Your task to perform on an android device: Clear the shopping cart on bestbuy. Add acer nitro to the cart on bestbuy Image 0: 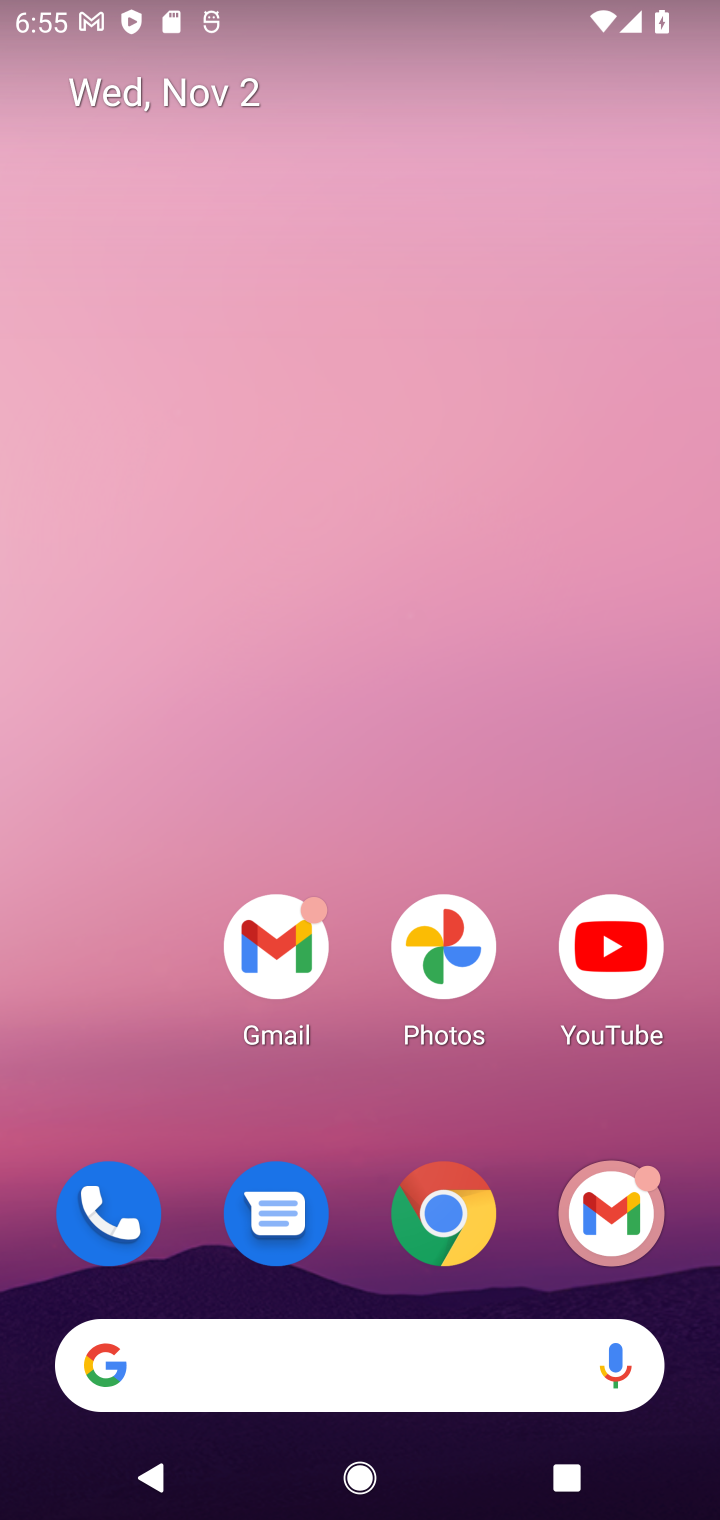
Step 0: click (443, 1210)
Your task to perform on an android device: Clear the shopping cart on bestbuy. Add acer nitro to the cart on bestbuy Image 1: 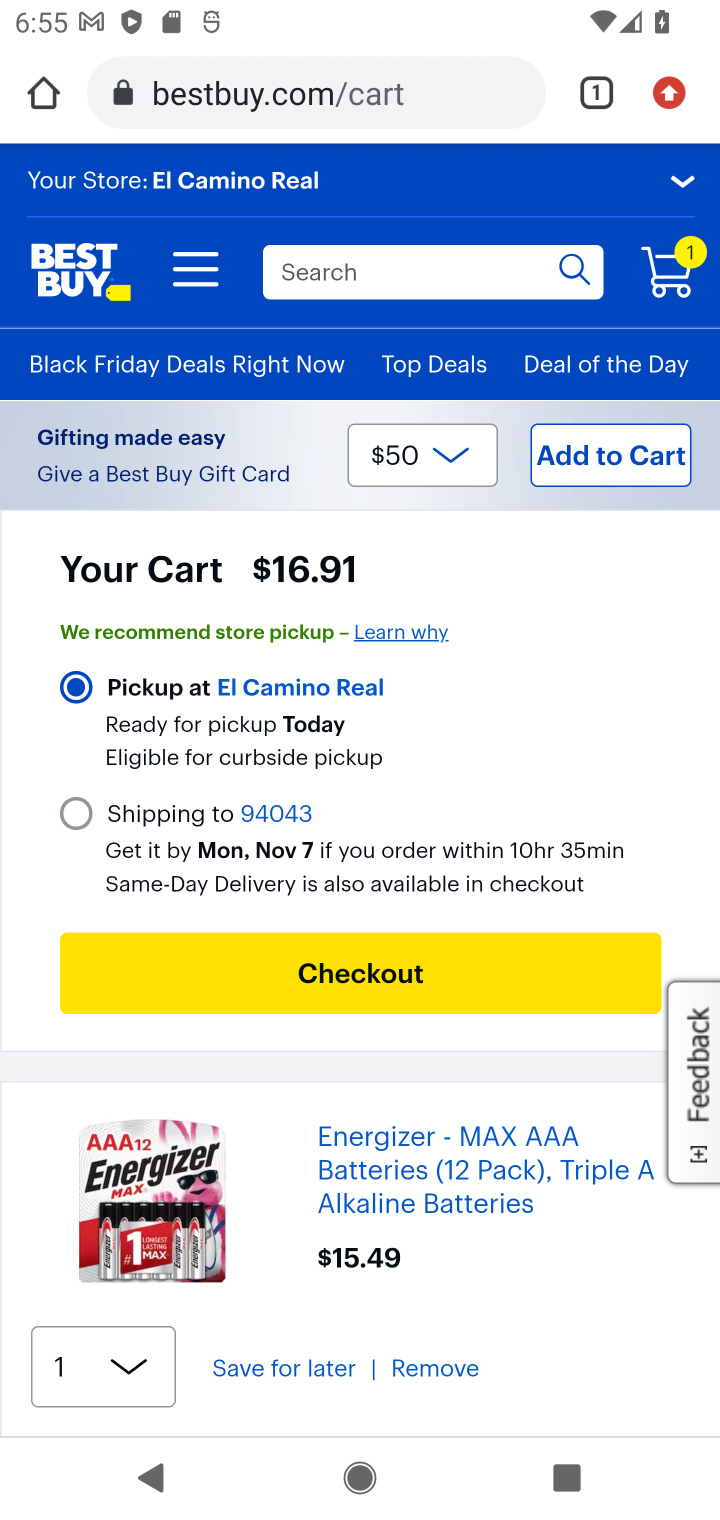
Step 1: click (431, 62)
Your task to perform on an android device: Clear the shopping cart on bestbuy. Add acer nitro to the cart on bestbuy Image 2: 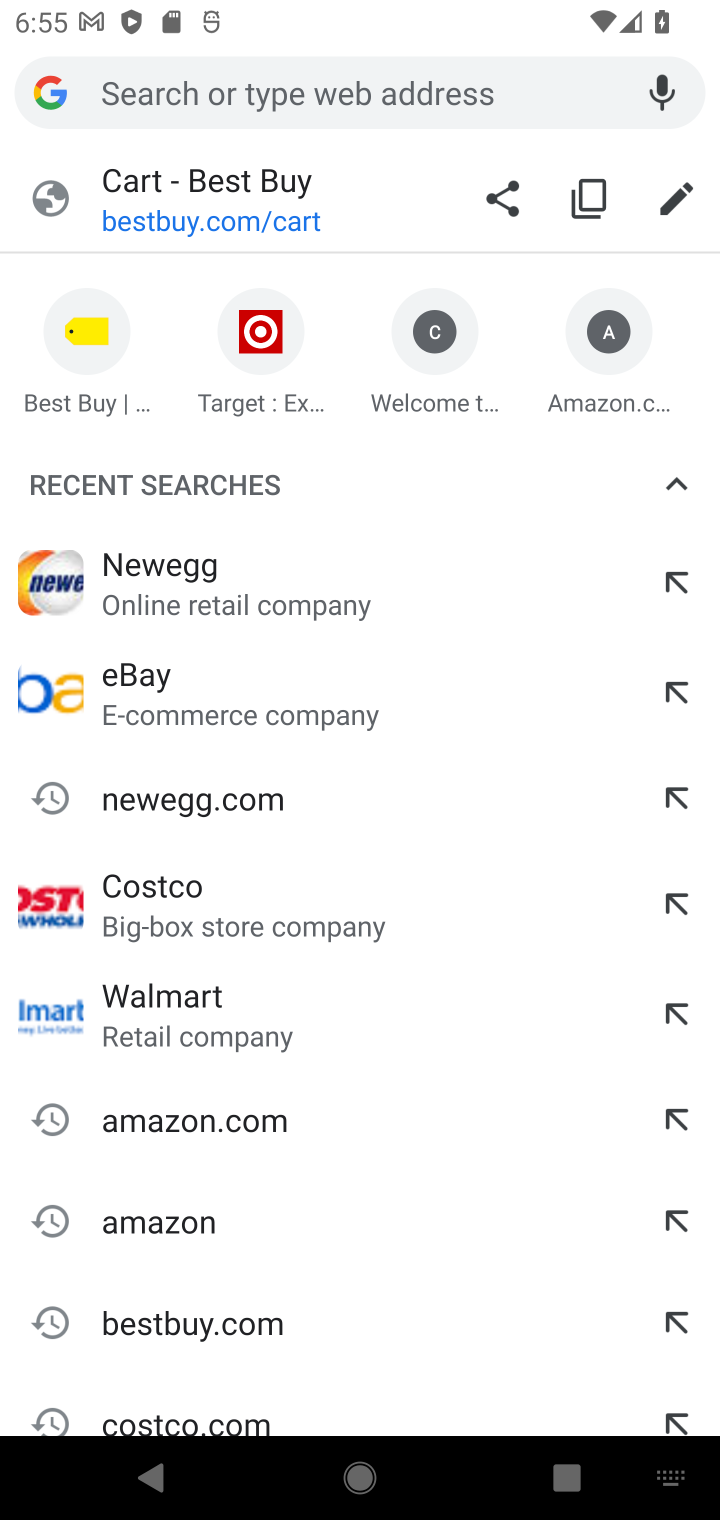
Step 2: type "bestbuy"
Your task to perform on an android device: Clear the shopping cart on bestbuy. Add acer nitro to the cart on bestbuy Image 3: 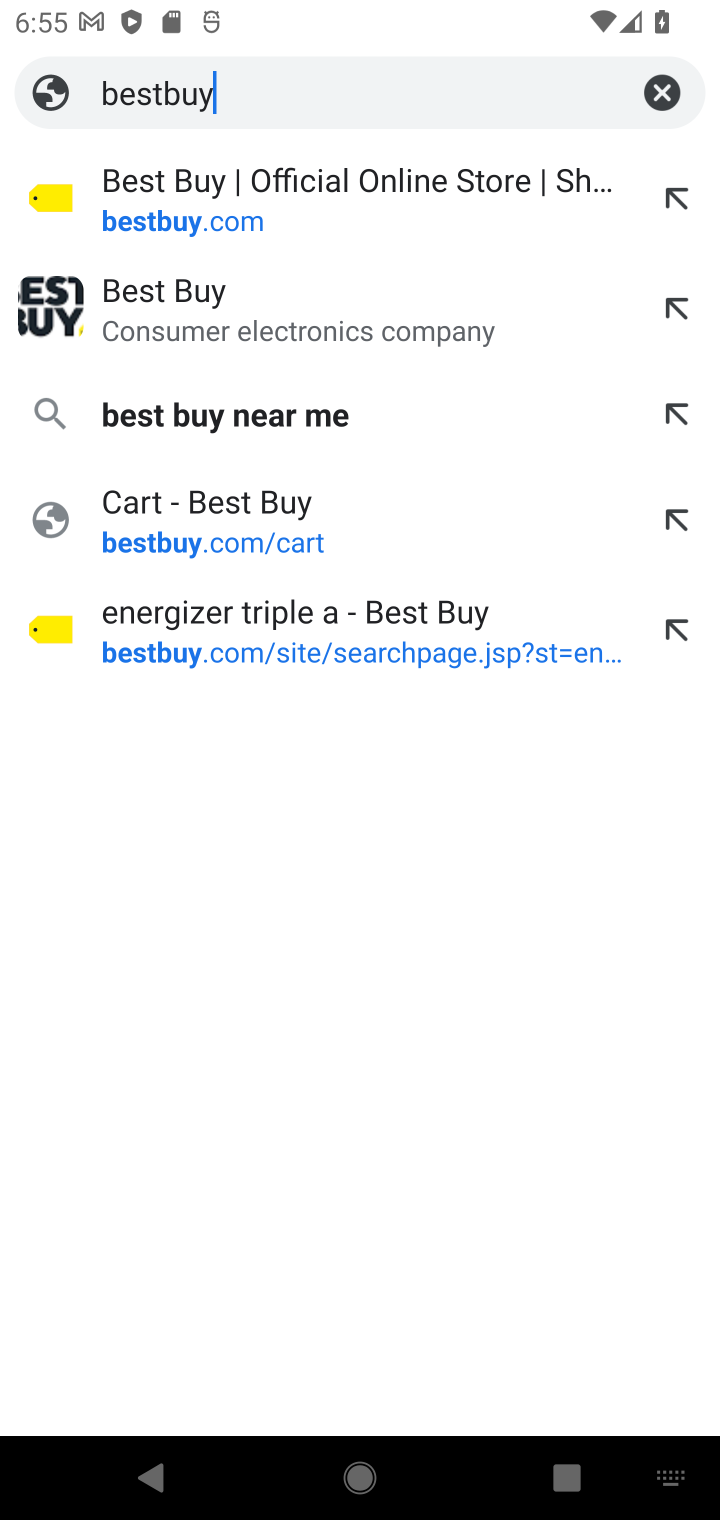
Step 3: click (174, 178)
Your task to perform on an android device: Clear the shopping cart on bestbuy. Add acer nitro to the cart on bestbuy Image 4: 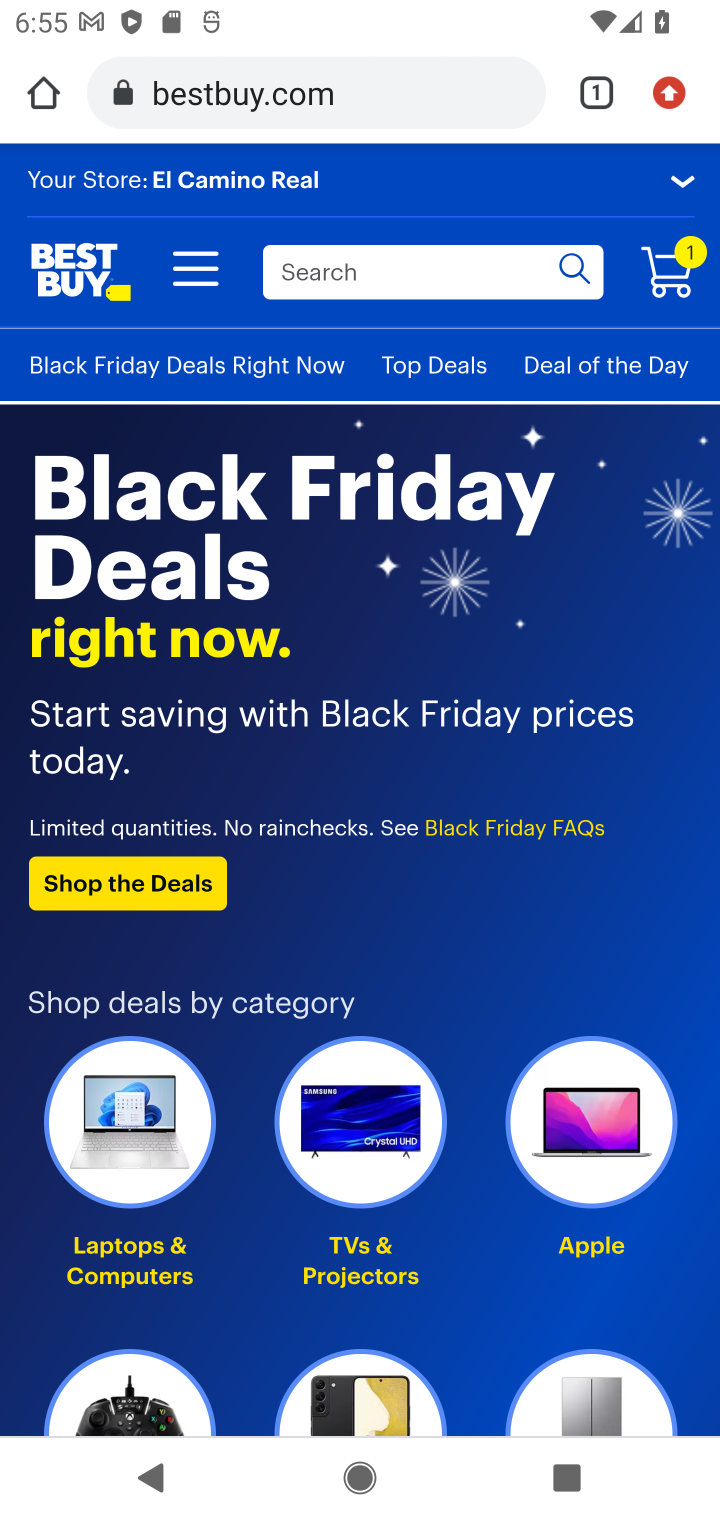
Step 4: click (664, 259)
Your task to perform on an android device: Clear the shopping cart on bestbuy. Add acer nitro to the cart on bestbuy Image 5: 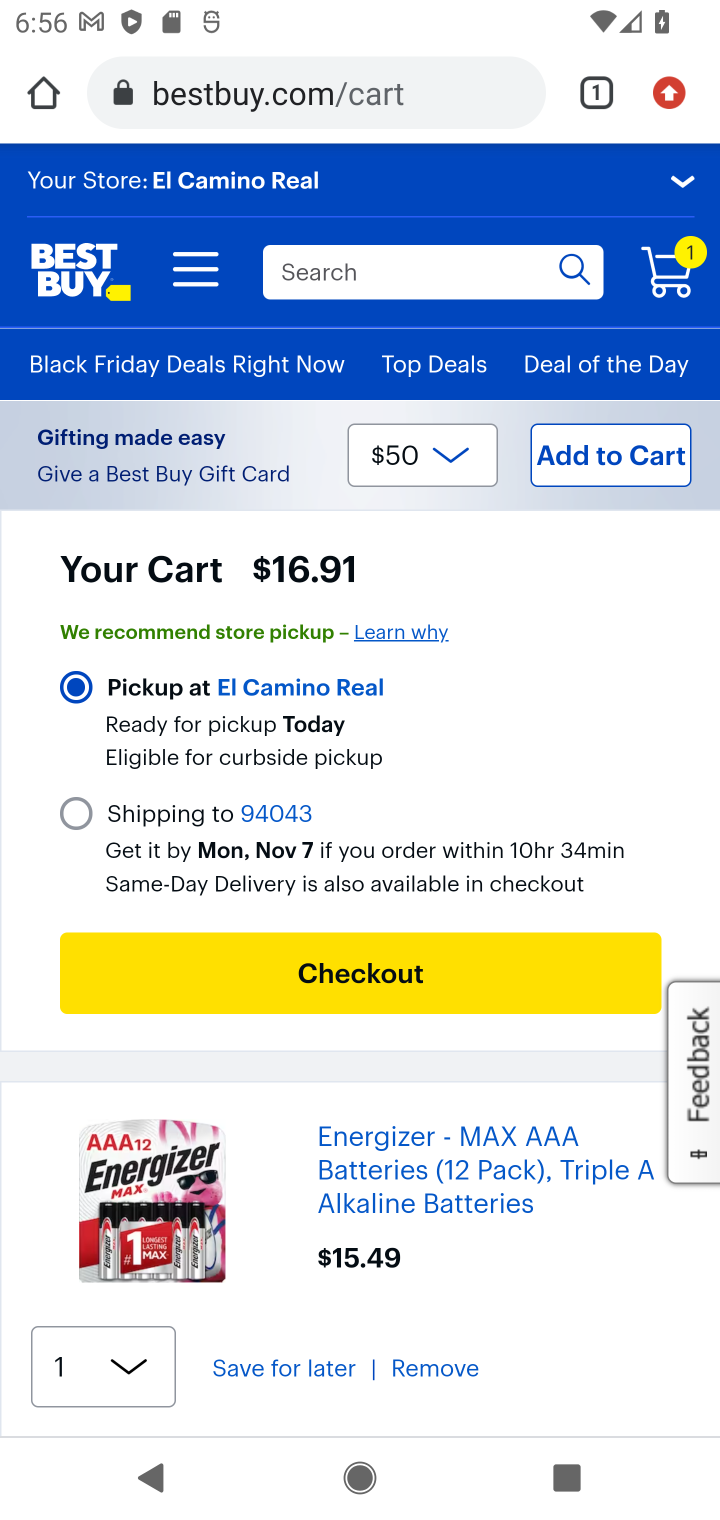
Step 5: drag from (438, 1322) to (385, 920)
Your task to perform on an android device: Clear the shopping cart on bestbuy. Add acer nitro to the cart on bestbuy Image 6: 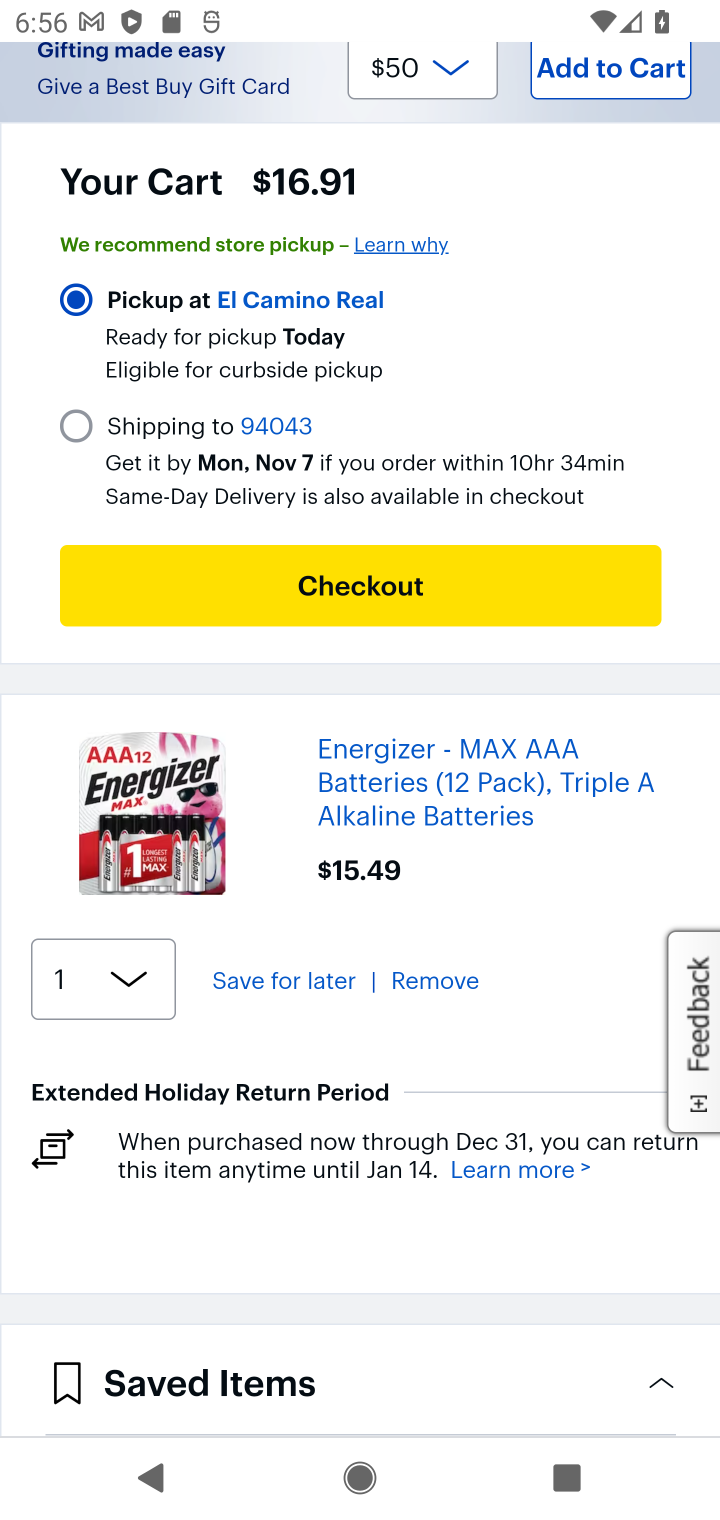
Step 6: click (435, 978)
Your task to perform on an android device: Clear the shopping cart on bestbuy. Add acer nitro to the cart on bestbuy Image 7: 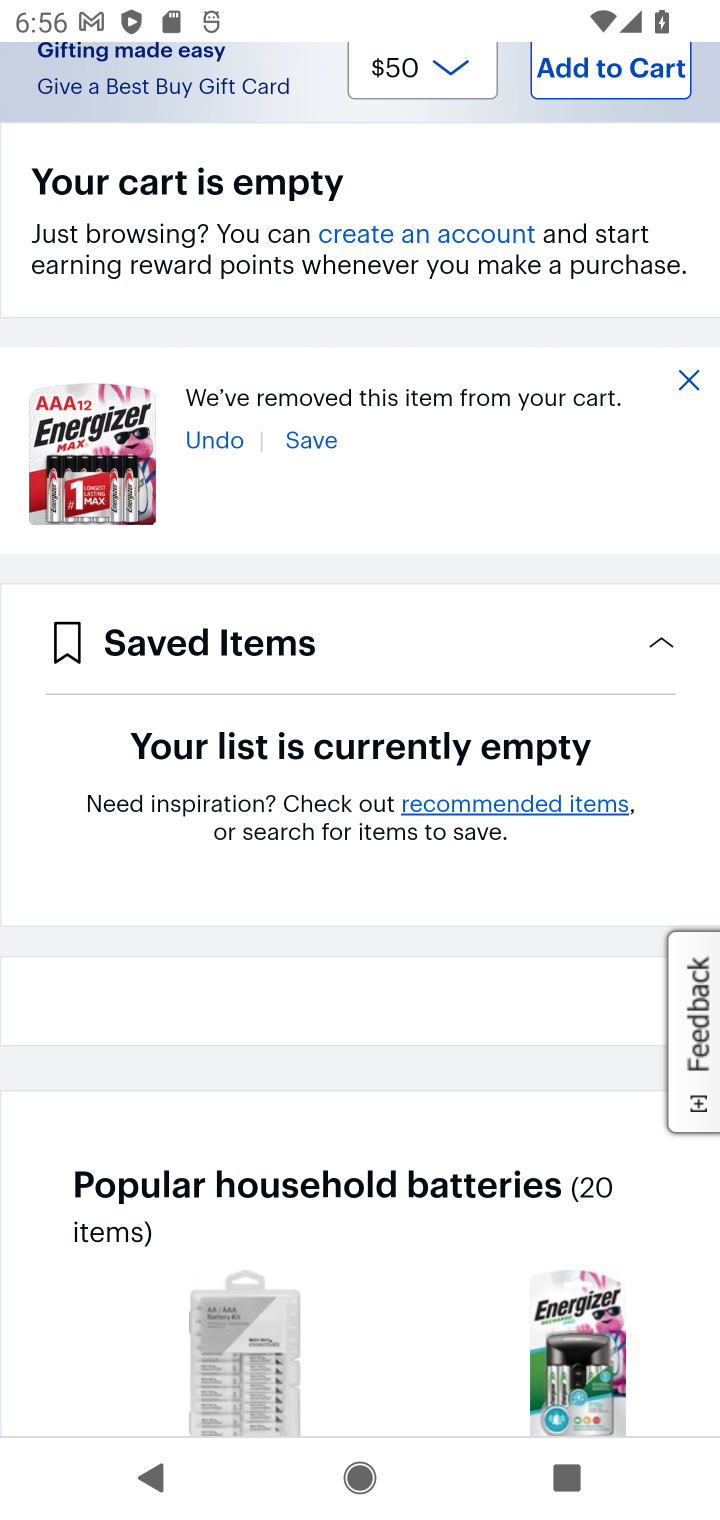
Step 7: drag from (427, 267) to (440, 943)
Your task to perform on an android device: Clear the shopping cart on bestbuy. Add acer nitro to the cart on bestbuy Image 8: 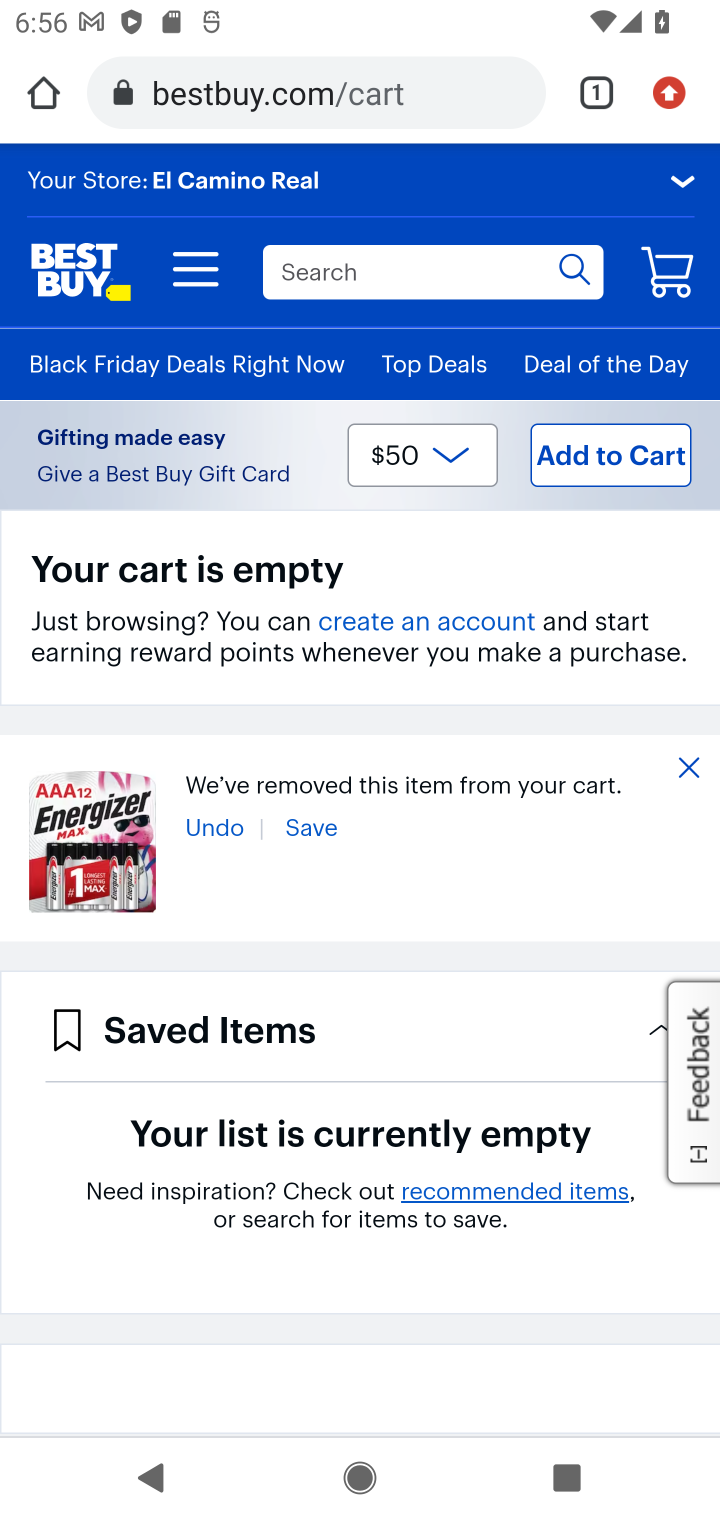
Step 8: click (356, 264)
Your task to perform on an android device: Clear the shopping cart on bestbuy. Add acer nitro to the cart on bestbuy Image 9: 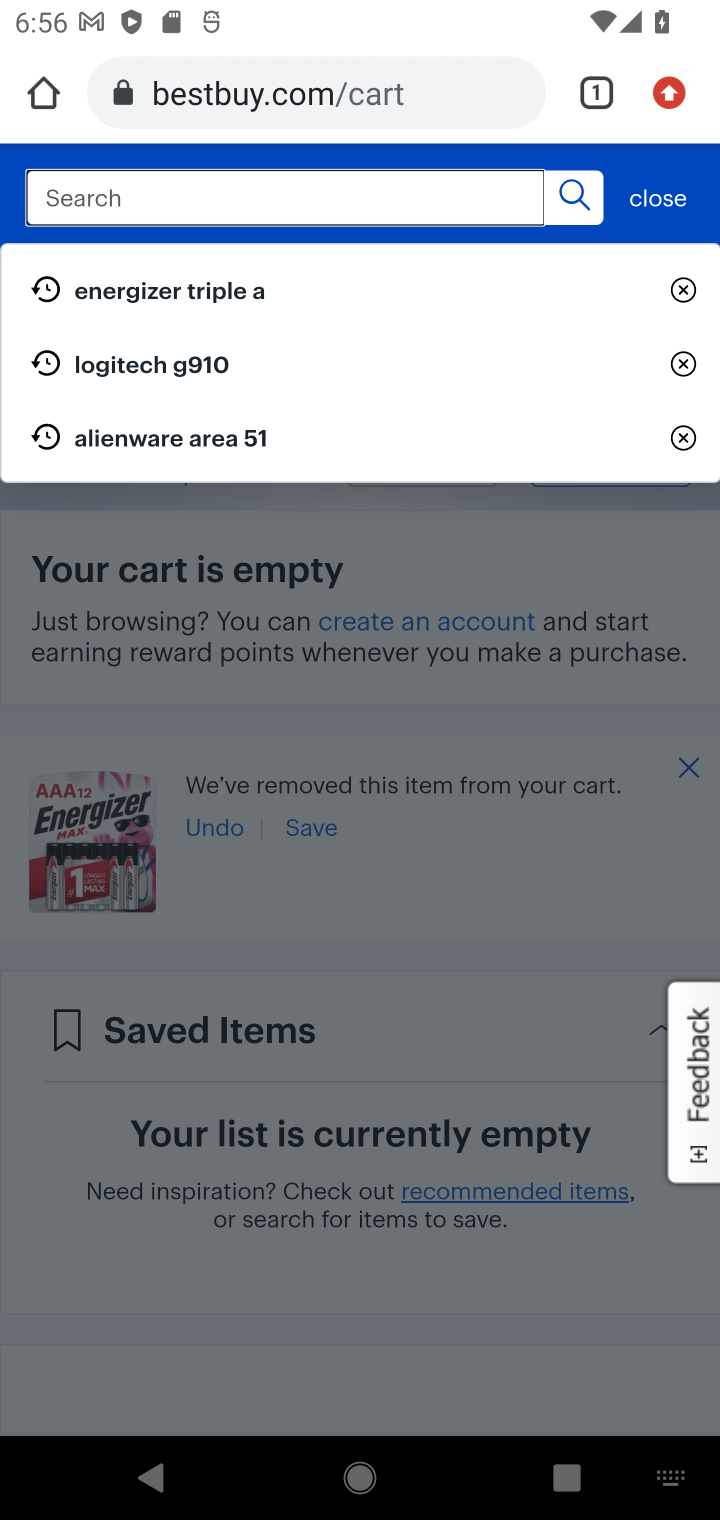
Step 9: click (144, 192)
Your task to perform on an android device: Clear the shopping cart on bestbuy. Add acer nitro to the cart on bestbuy Image 10: 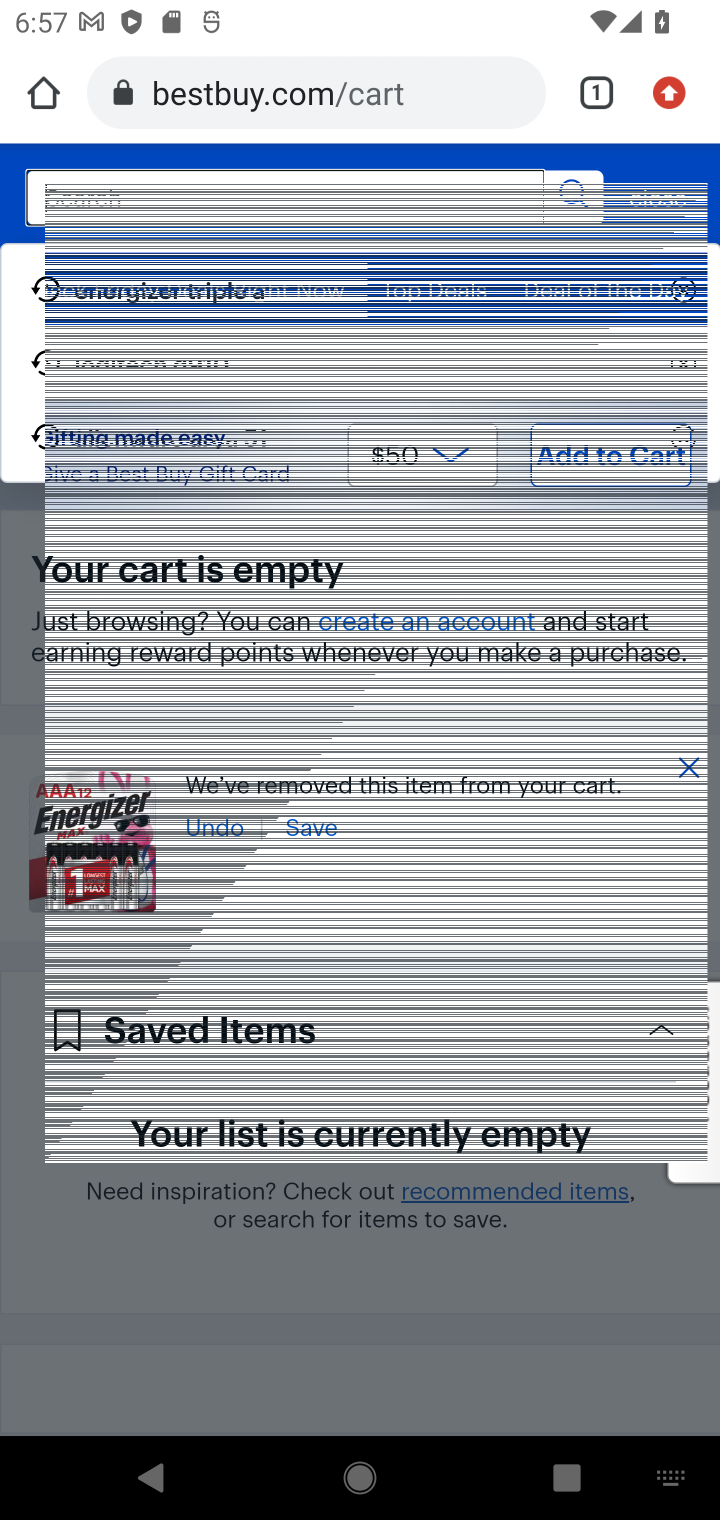
Step 10: type "acer nitro"
Your task to perform on an android device: Clear the shopping cart on bestbuy. Add acer nitro to the cart on bestbuy Image 11: 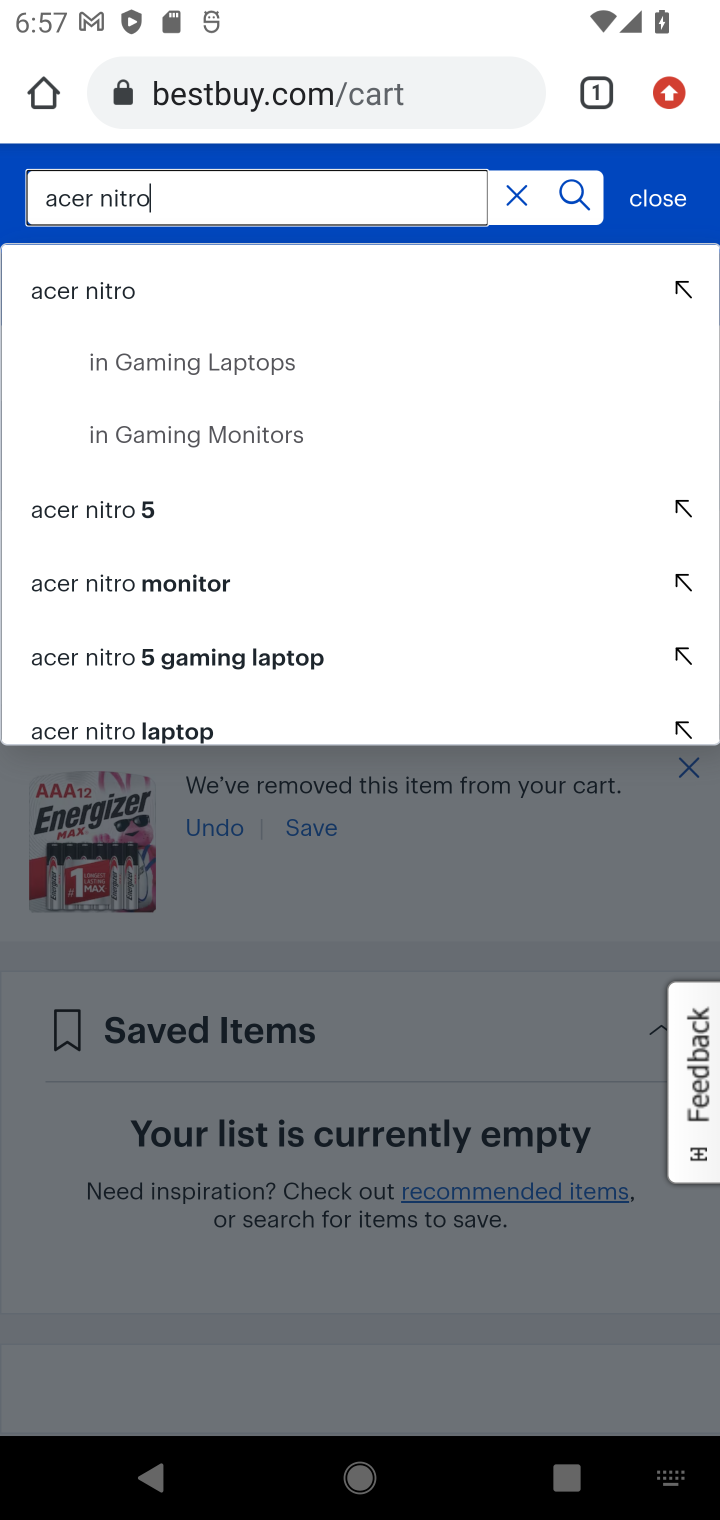
Step 11: click (50, 286)
Your task to perform on an android device: Clear the shopping cart on bestbuy. Add acer nitro to the cart on bestbuy Image 12: 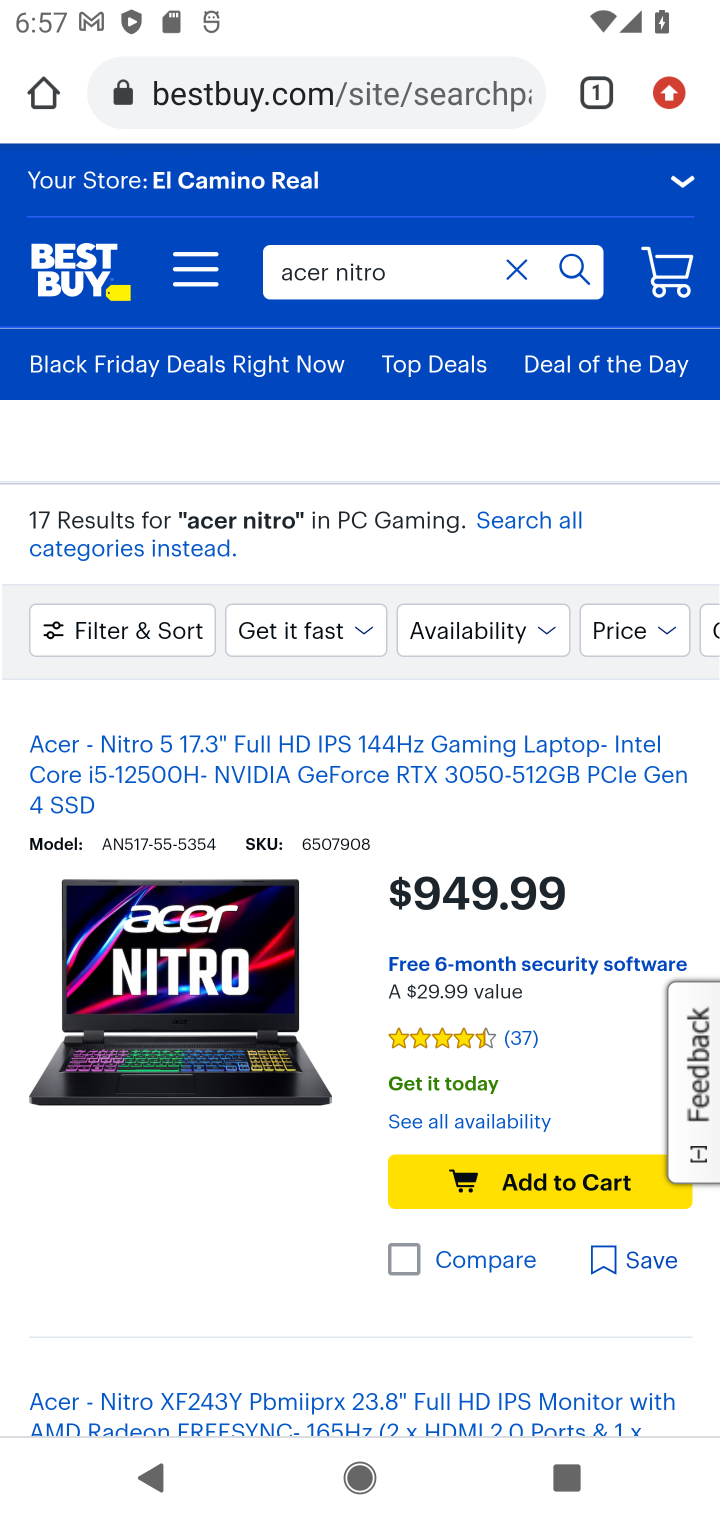
Step 12: click (528, 1175)
Your task to perform on an android device: Clear the shopping cart on bestbuy. Add acer nitro to the cart on bestbuy Image 13: 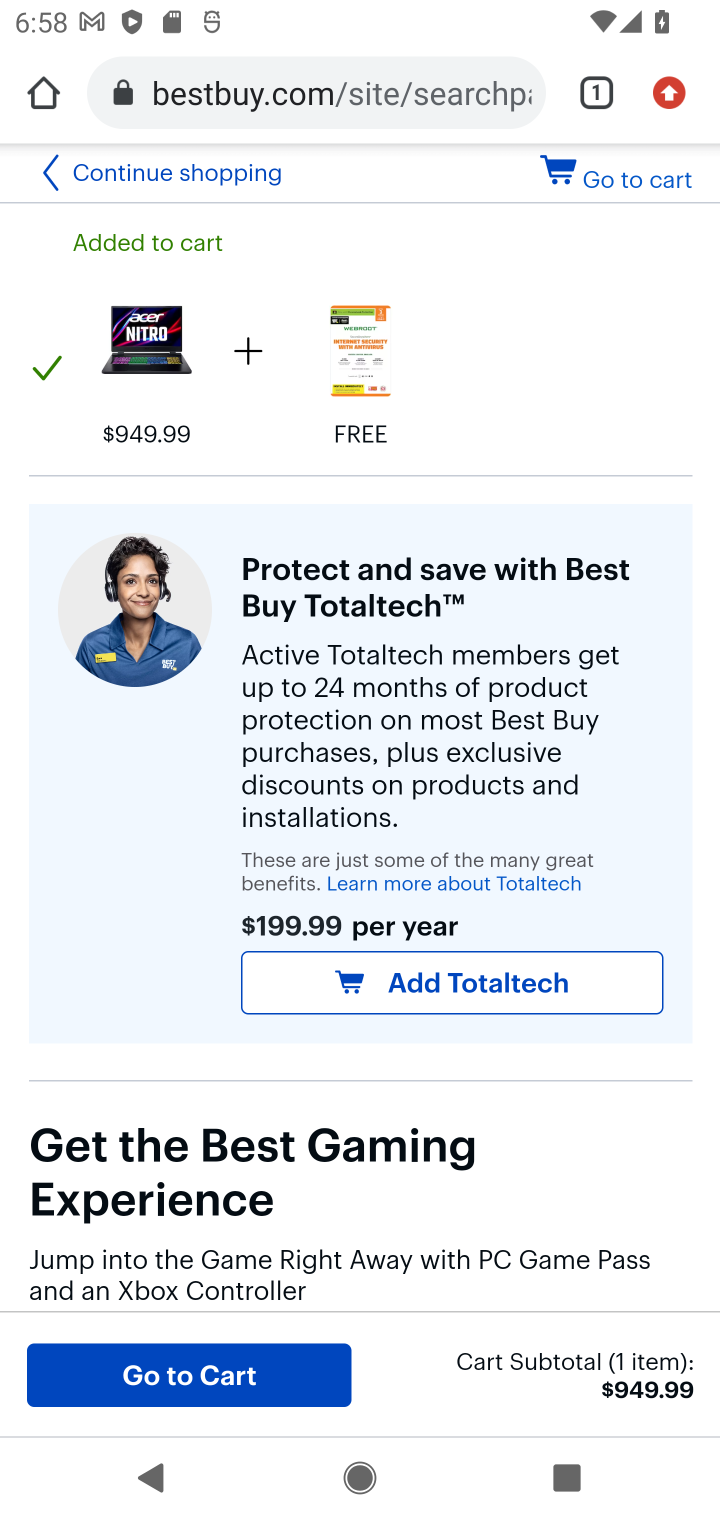
Step 13: click (123, 1378)
Your task to perform on an android device: Clear the shopping cart on bestbuy. Add acer nitro to the cart on bestbuy Image 14: 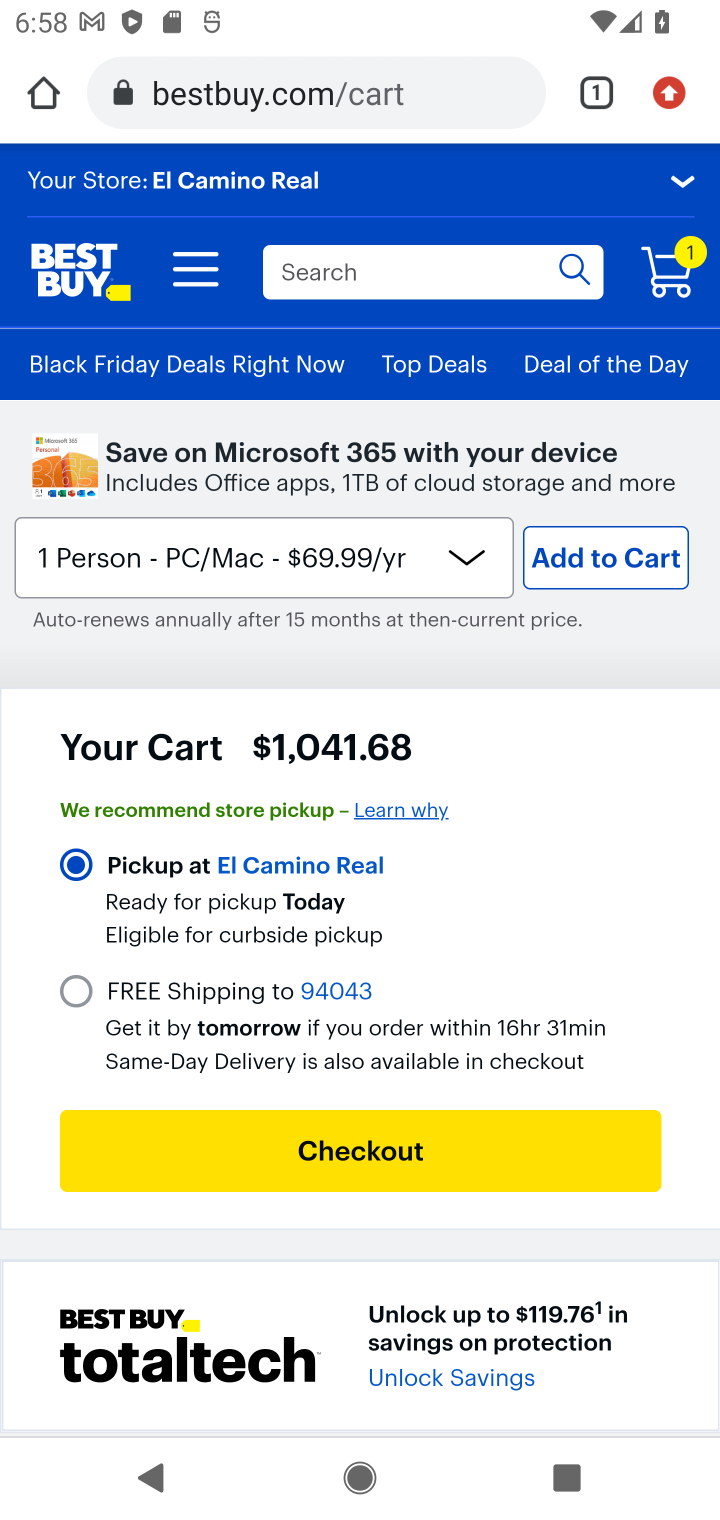
Step 14: click (361, 1138)
Your task to perform on an android device: Clear the shopping cart on bestbuy. Add acer nitro to the cart on bestbuy Image 15: 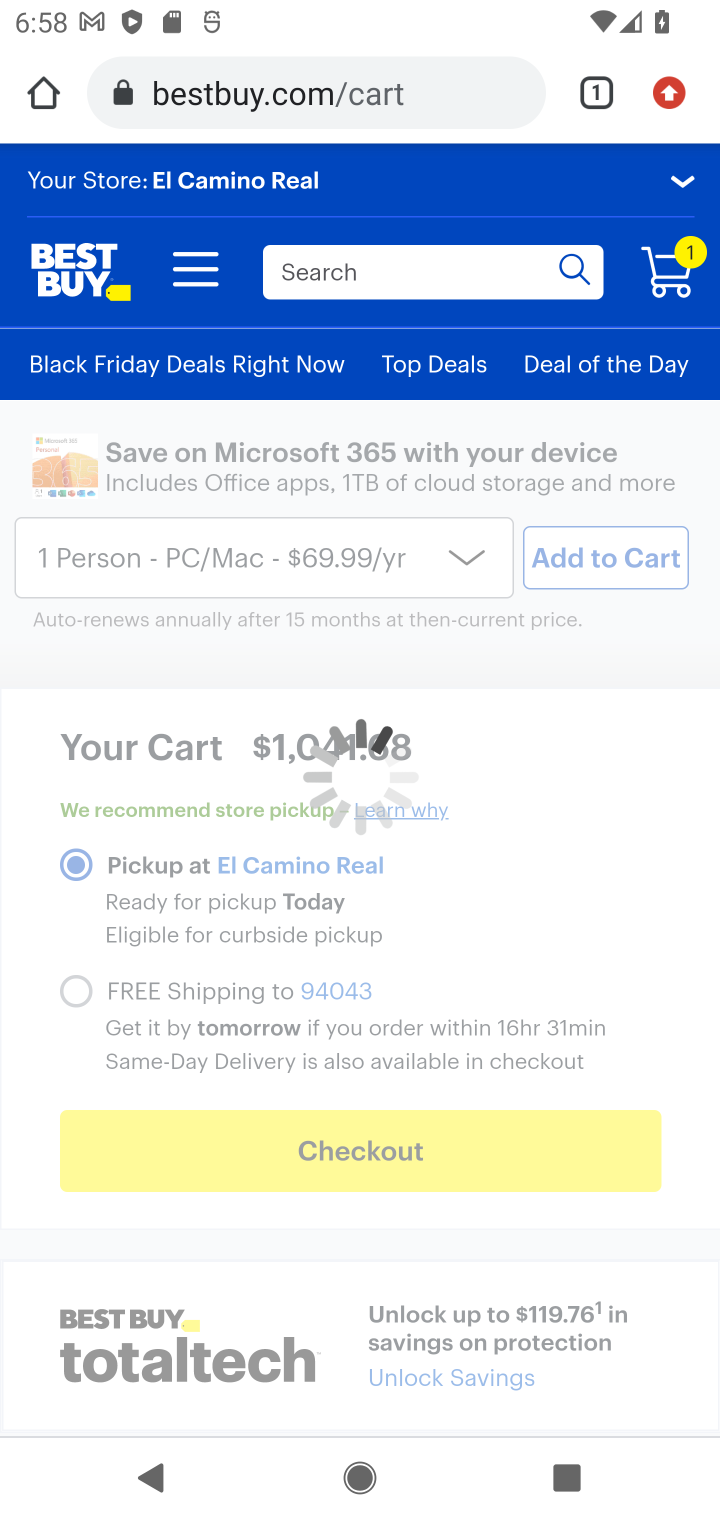
Step 15: task complete